Your task to perform on an android device: turn off priority inbox in the gmail app Image 0: 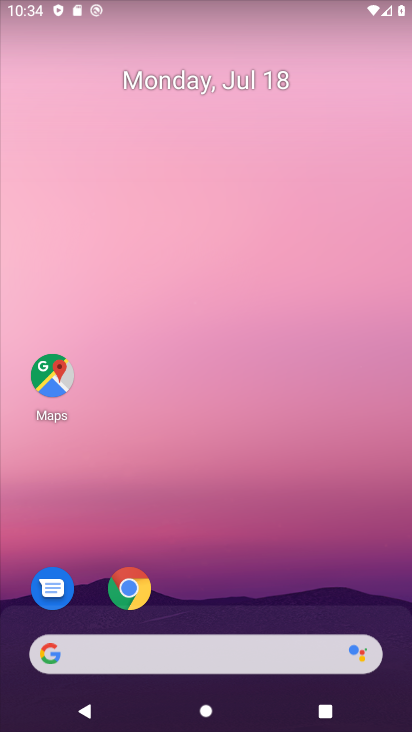
Step 0: drag from (197, 574) to (196, 138)
Your task to perform on an android device: turn off priority inbox in the gmail app Image 1: 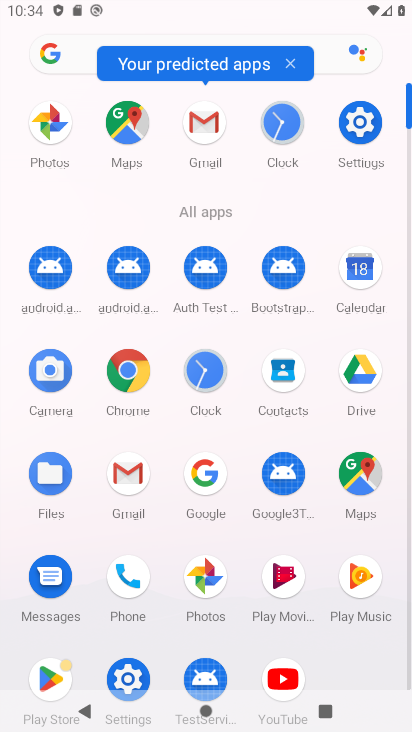
Step 1: click (138, 481)
Your task to perform on an android device: turn off priority inbox in the gmail app Image 2: 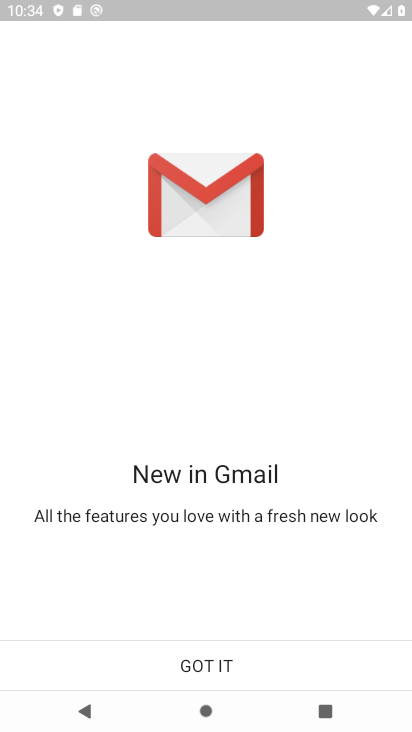
Step 2: click (187, 665)
Your task to perform on an android device: turn off priority inbox in the gmail app Image 3: 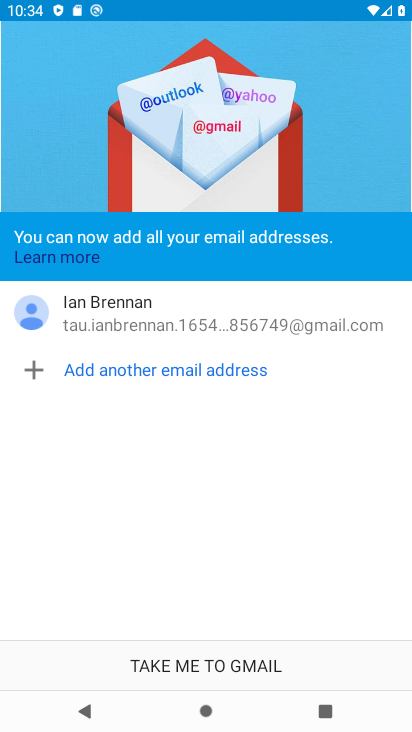
Step 3: click (187, 665)
Your task to perform on an android device: turn off priority inbox in the gmail app Image 4: 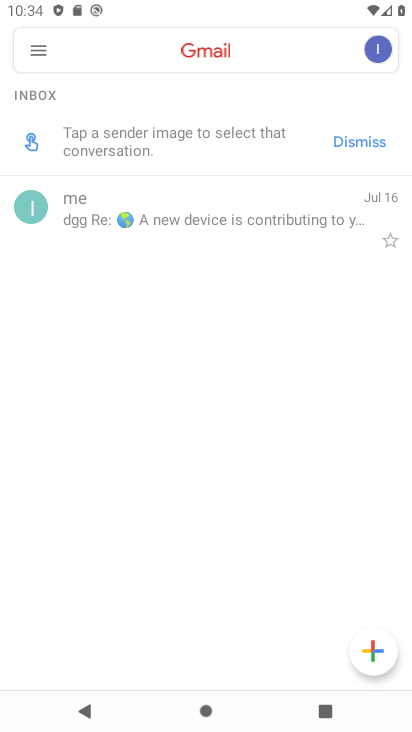
Step 4: click (43, 55)
Your task to perform on an android device: turn off priority inbox in the gmail app Image 5: 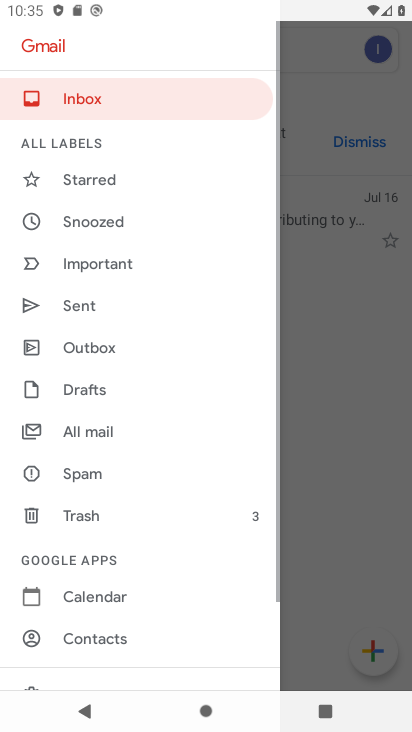
Step 5: drag from (118, 623) to (148, 228)
Your task to perform on an android device: turn off priority inbox in the gmail app Image 6: 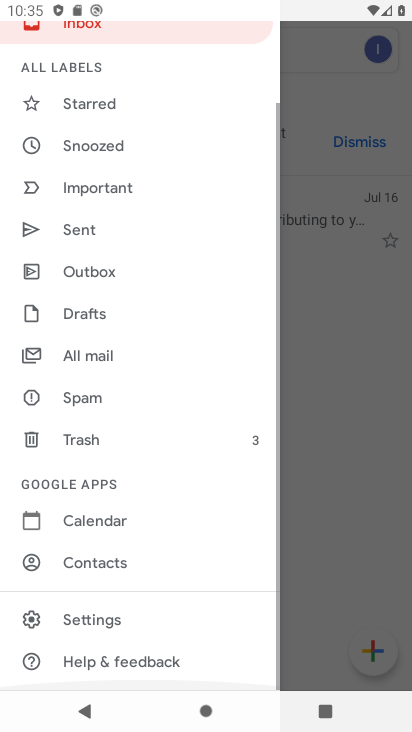
Step 6: click (140, 619)
Your task to perform on an android device: turn off priority inbox in the gmail app Image 7: 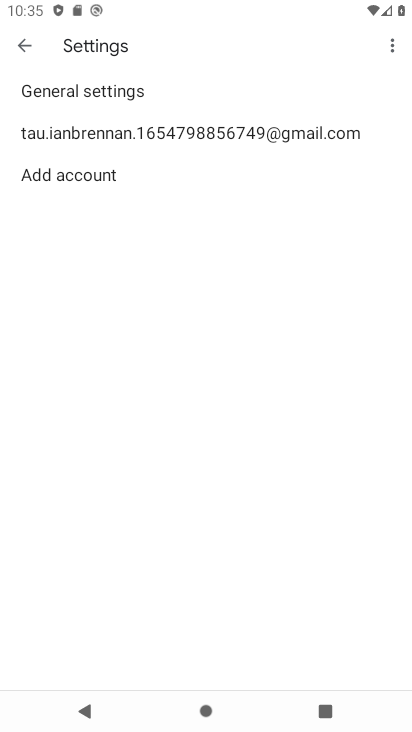
Step 7: click (193, 144)
Your task to perform on an android device: turn off priority inbox in the gmail app Image 8: 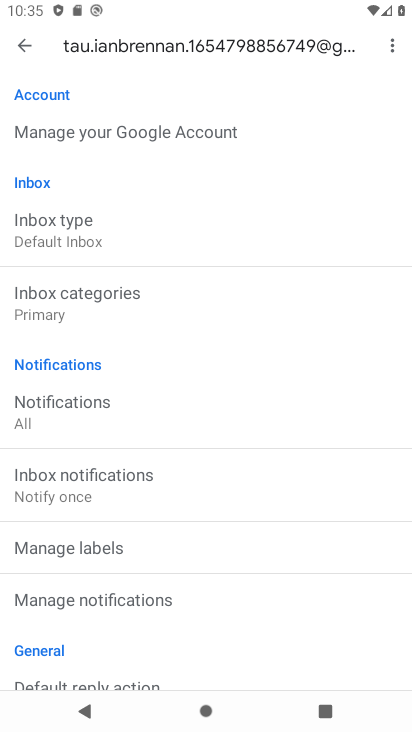
Step 8: click (202, 248)
Your task to perform on an android device: turn off priority inbox in the gmail app Image 9: 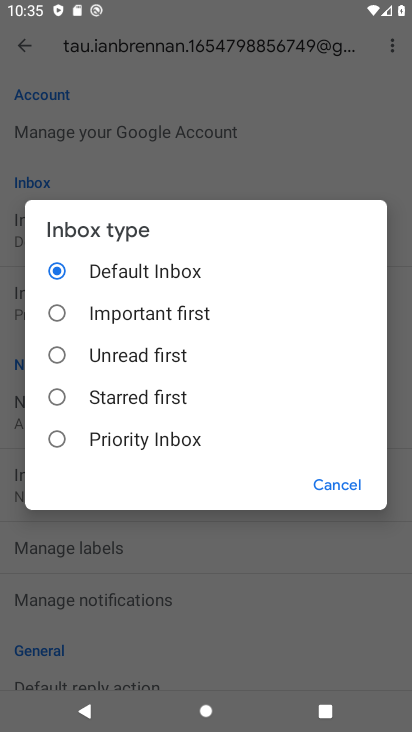
Step 9: task complete